Your task to perform on an android device: Turn off the flashlight Image 0: 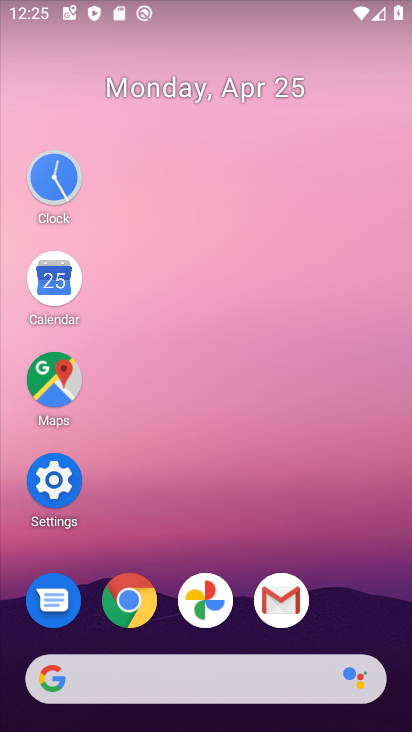
Step 0: click (52, 479)
Your task to perform on an android device: Turn off the flashlight Image 1: 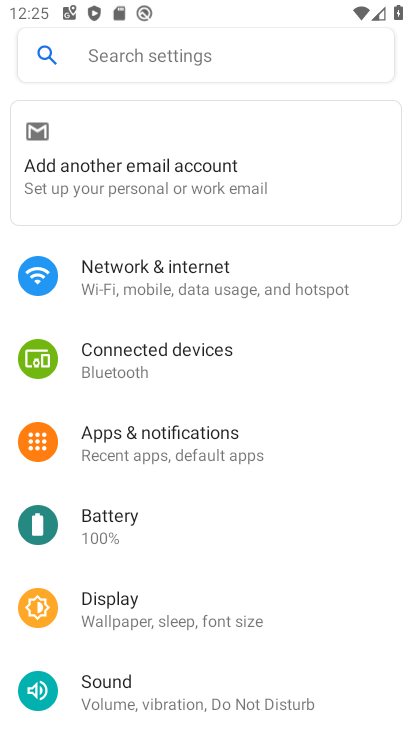
Step 1: click (107, 595)
Your task to perform on an android device: Turn off the flashlight Image 2: 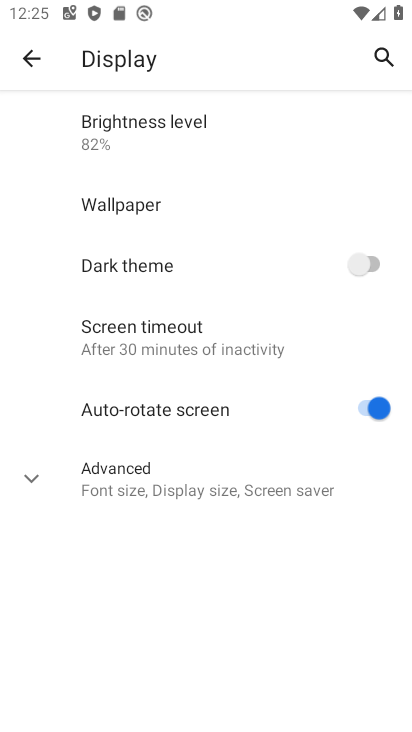
Step 2: task complete